Your task to perform on an android device: turn notification dots on Image 0: 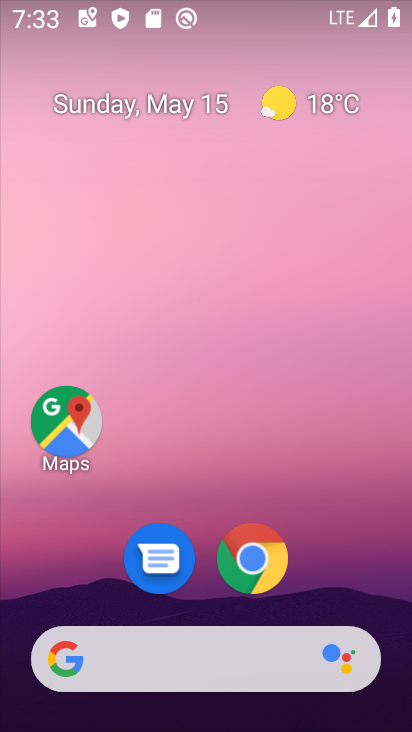
Step 0: drag from (338, 550) to (204, 67)
Your task to perform on an android device: turn notification dots on Image 1: 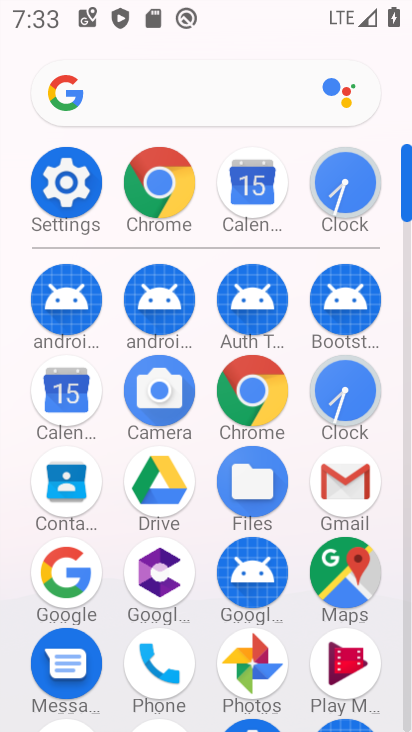
Step 1: click (63, 186)
Your task to perform on an android device: turn notification dots on Image 2: 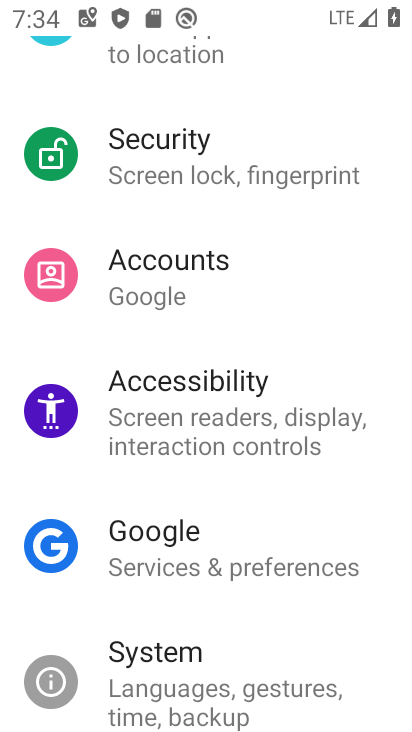
Step 2: drag from (223, 300) to (172, 722)
Your task to perform on an android device: turn notification dots on Image 3: 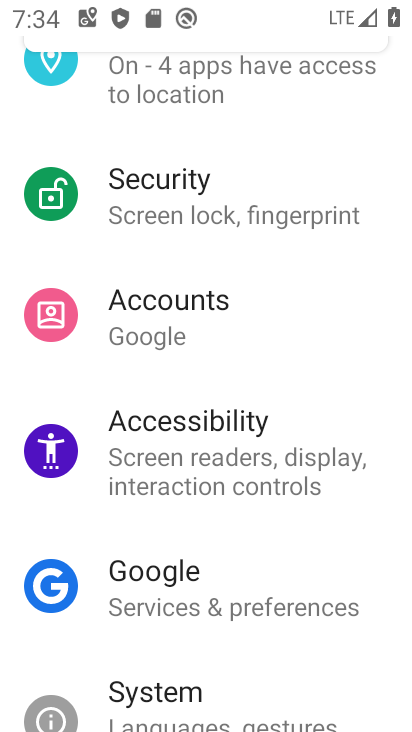
Step 3: drag from (199, 136) to (163, 721)
Your task to perform on an android device: turn notification dots on Image 4: 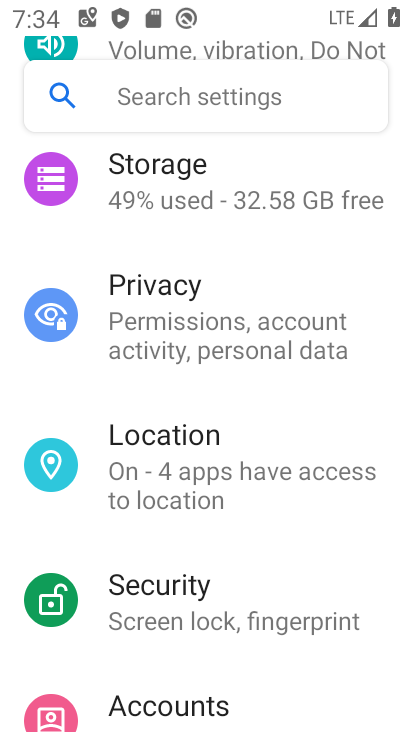
Step 4: drag from (167, 249) to (218, 730)
Your task to perform on an android device: turn notification dots on Image 5: 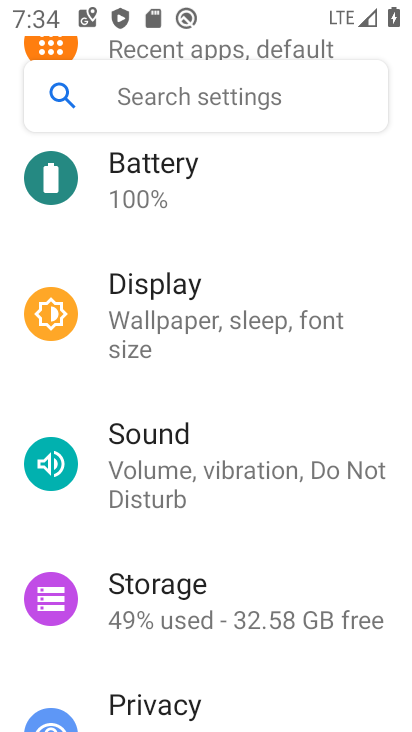
Step 5: drag from (155, 239) to (143, 726)
Your task to perform on an android device: turn notification dots on Image 6: 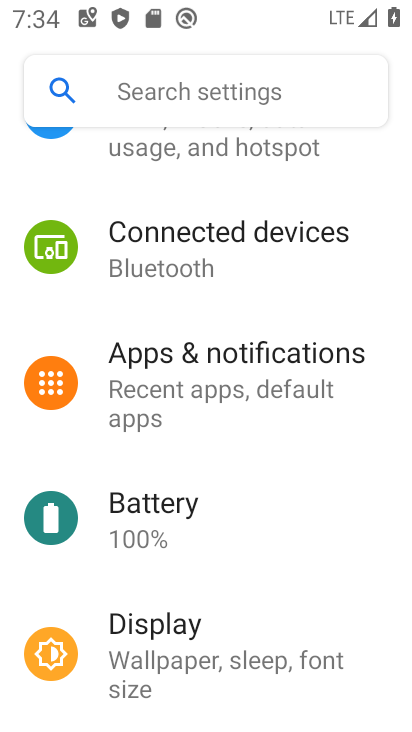
Step 6: click (235, 356)
Your task to perform on an android device: turn notification dots on Image 7: 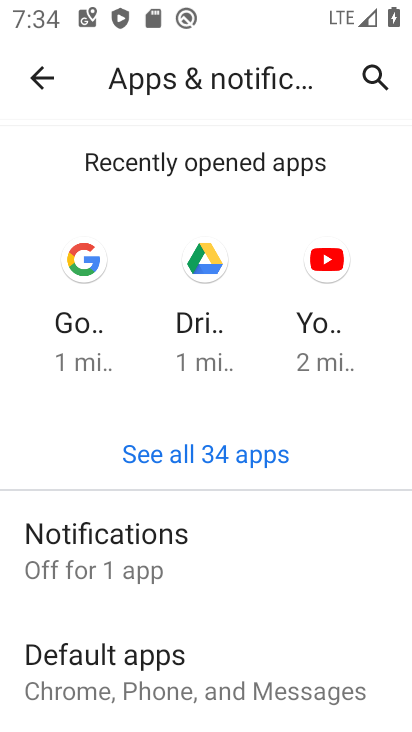
Step 7: drag from (229, 566) to (163, 158)
Your task to perform on an android device: turn notification dots on Image 8: 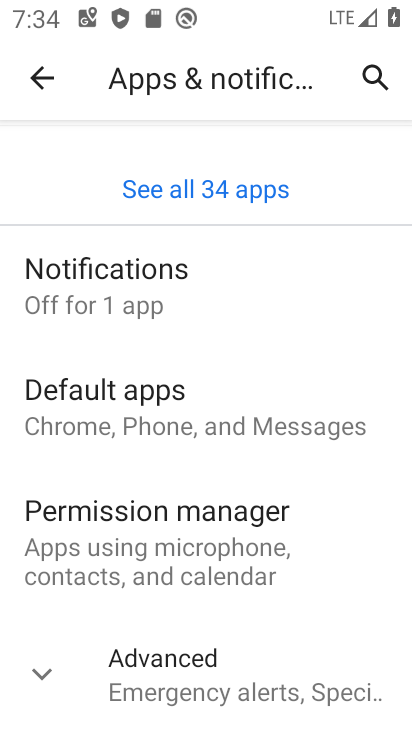
Step 8: click (120, 266)
Your task to perform on an android device: turn notification dots on Image 9: 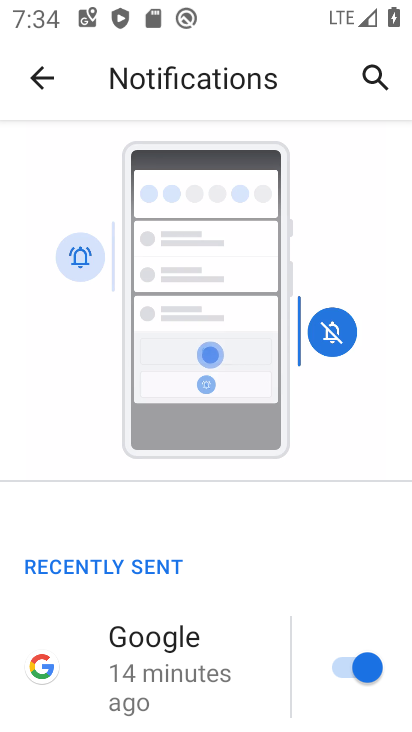
Step 9: drag from (248, 559) to (235, 103)
Your task to perform on an android device: turn notification dots on Image 10: 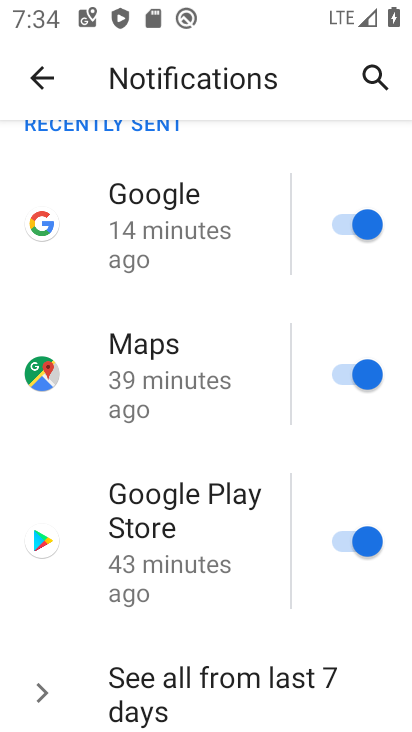
Step 10: drag from (219, 626) to (145, 16)
Your task to perform on an android device: turn notification dots on Image 11: 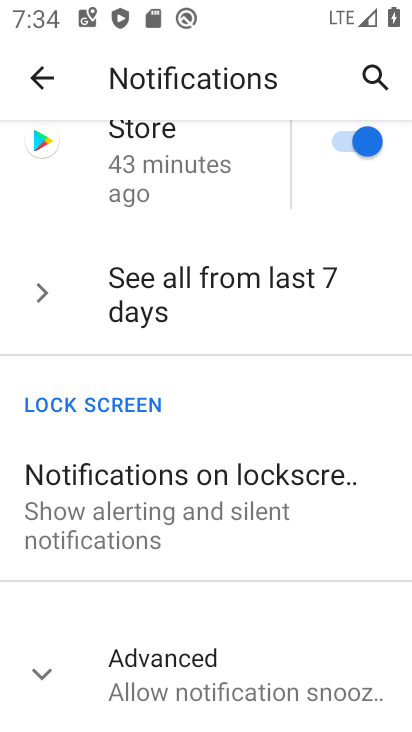
Step 11: click (40, 670)
Your task to perform on an android device: turn notification dots on Image 12: 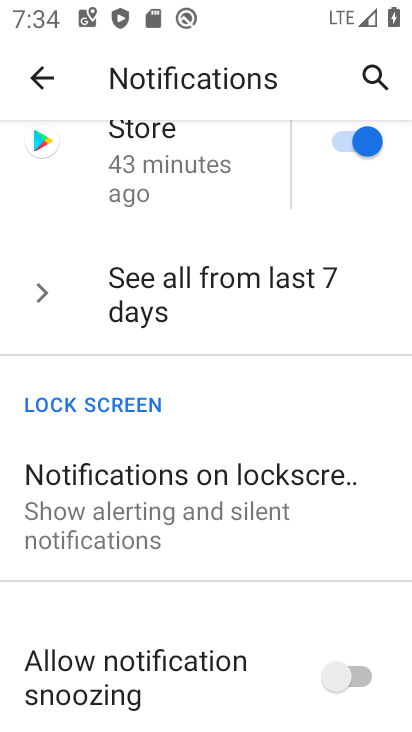
Step 12: drag from (241, 608) to (192, 173)
Your task to perform on an android device: turn notification dots on Image 13: 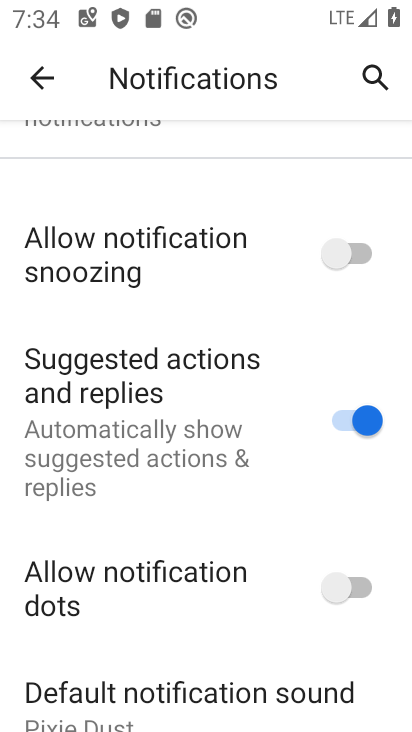
Step 13: click (343, 596)
Your task to perform on an android device: turn notification dots on Image 14: 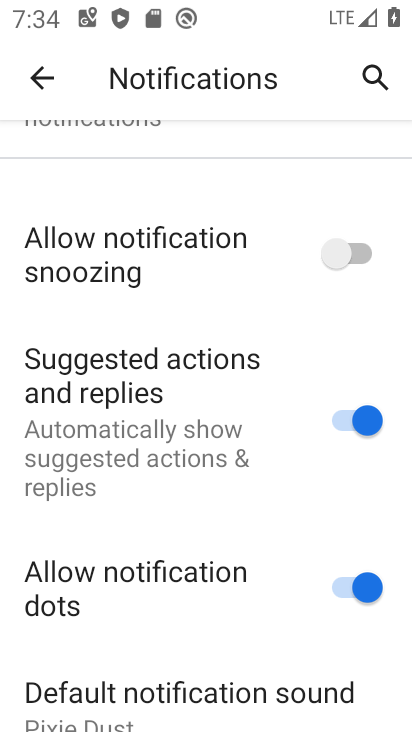
Step 14: task complete